Your task to perform on an android device: turn on notifications settings in the gmail app Image 0: 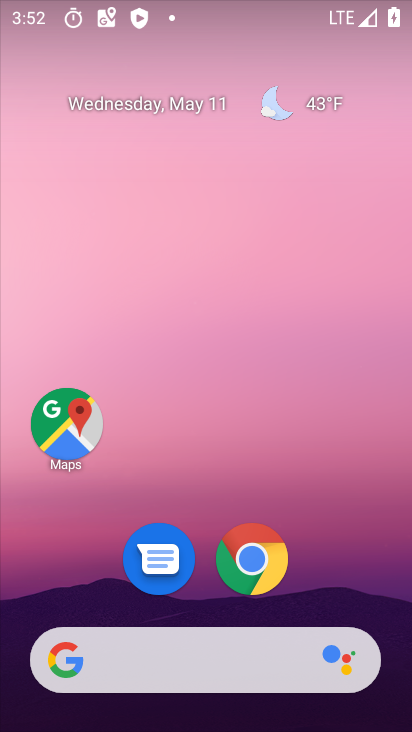
Step 0: drag from (323, 555) to (260, 63)
Your task to perform on an android device: turn on notifications settings in the gmail app Image 1: 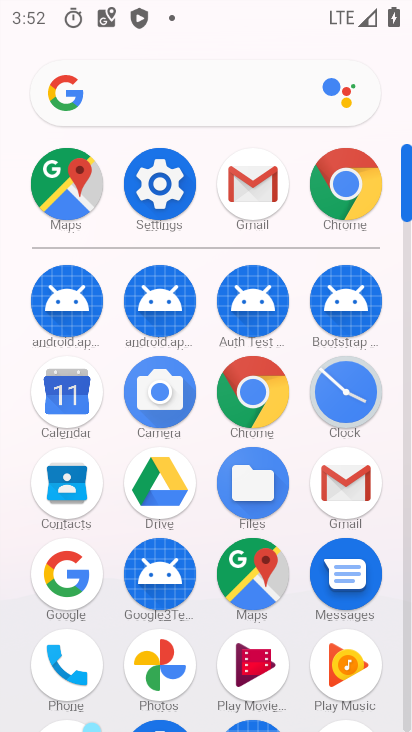
Step 1: click (258, 194)
Your task to perform on an android device: turn on notifications settings in the gmail app Image 2: 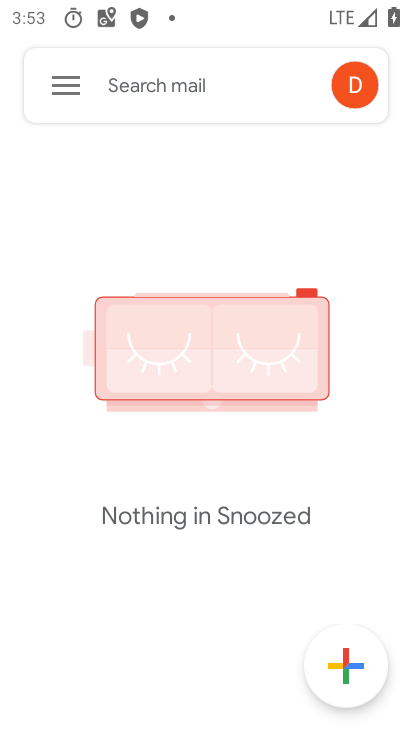
Step 2: click (62, 89)
Your task to perform on an android device: turn on notifications settings in the gmail app Image 3: 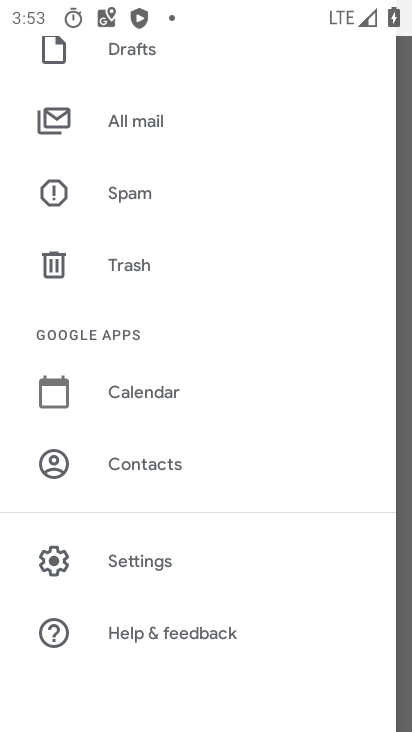
Step 3: click (198, 555)
Your task to perform on an android device: turn on notifications settings in the gmail app Image 4: 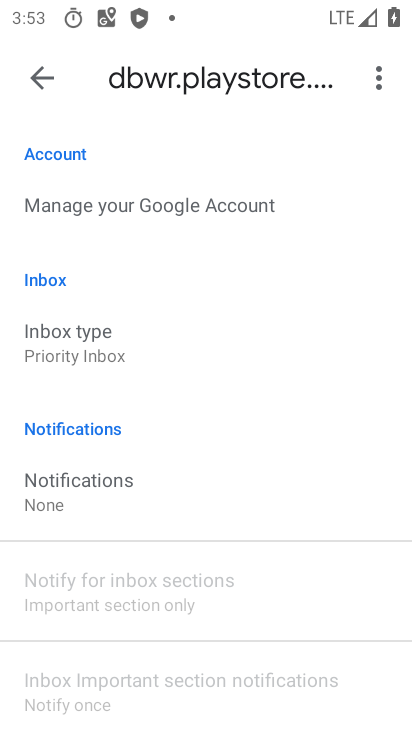
Step 4: click (146, 493)
Your task to perform on an android device: turn on notifications settings in the gmail app Image 5: 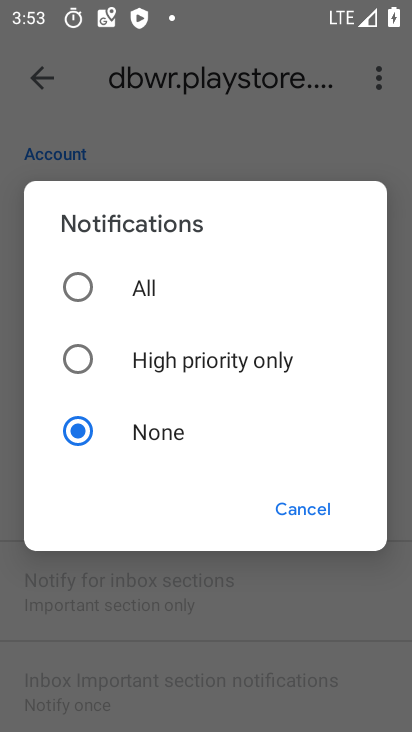
Step 5: click (142, 288)
Your task to perform on an android device: turn on notifications settings in the gmail app Image 6: 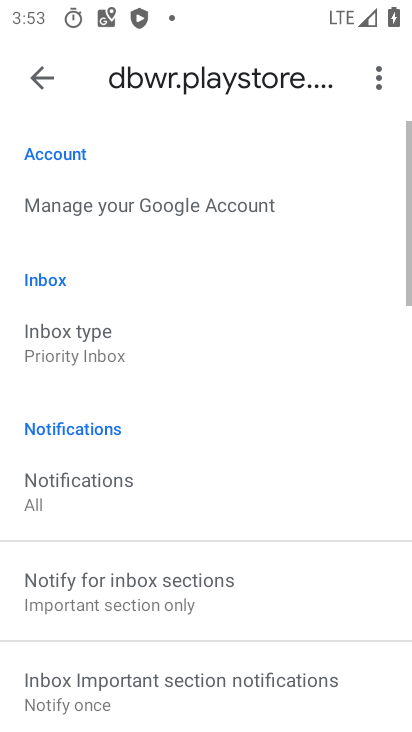
Step 6: task complete